Your task to perform on an android device: turn on priority inbox in the gmail app Image 0: 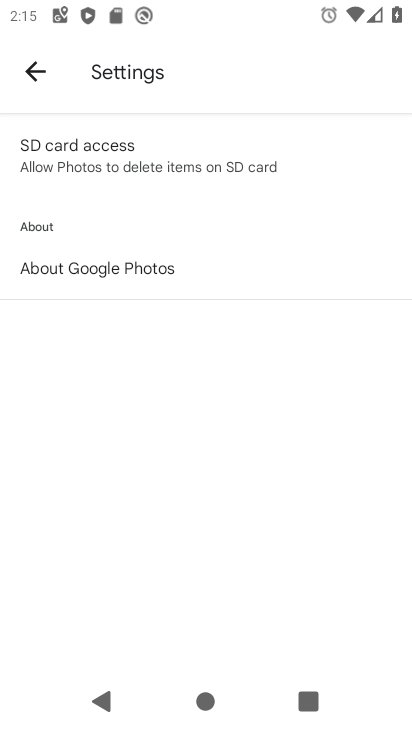
Step 0: press home button
Your task to perform on an android device: turn on priority inbox in the gmail app Image 1: 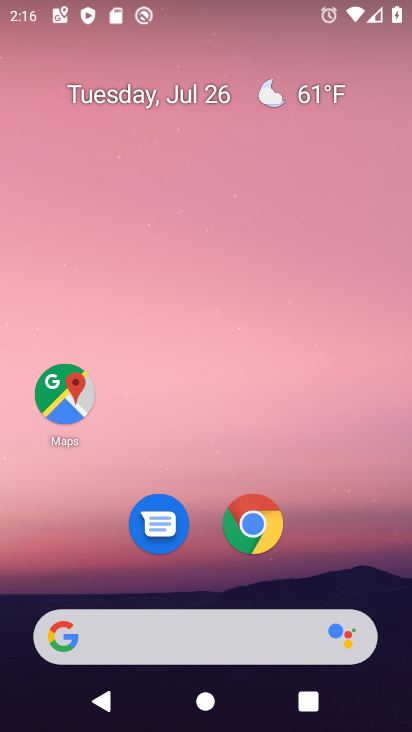
Step 1: drag from (174, 646) to (250, 125)
Your task to perform on an android device: turn on priority inbox in the gmail app Image 2: 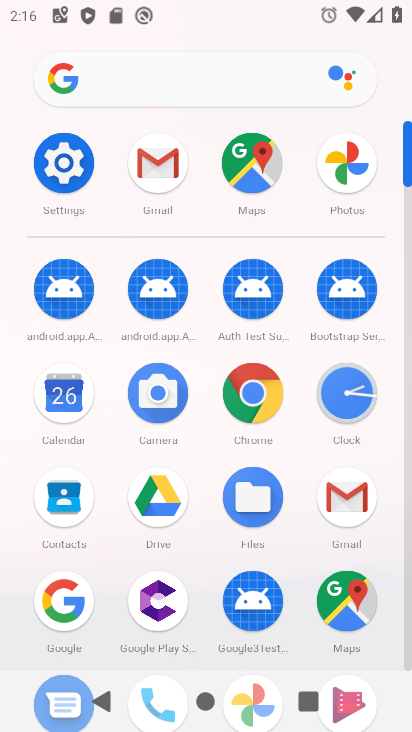
Step 2: click (168, 177)
Your task to perform on an android device: turn on priority inbox in the gmail app Image 3: 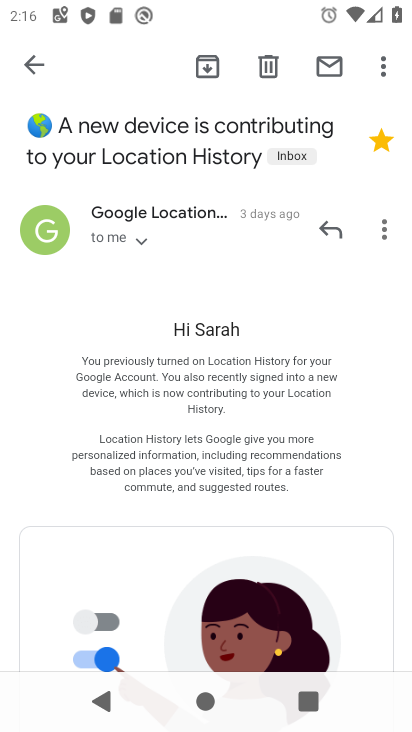
Step 3: click (35, 64)
Your task to perform on an android device: turn on priority inbox in the gmail app Image 4: 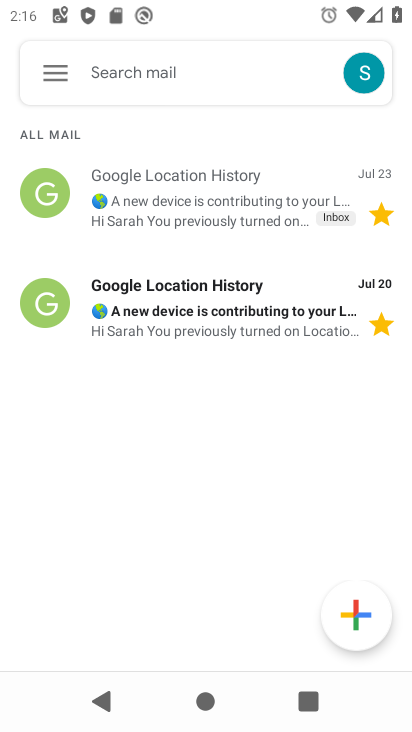
Step 4: click (53, 74)
Your task to perform on an android device: turn on priority inbox in the gmail app Image 5: 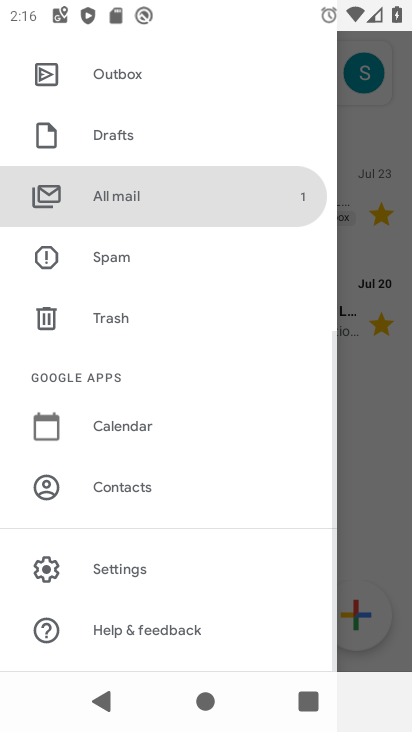
Step 5: drag from (203, 551) to (272, 98)
Your task to perform on an android device: turn on priority inbox in the gmail app Image 6: 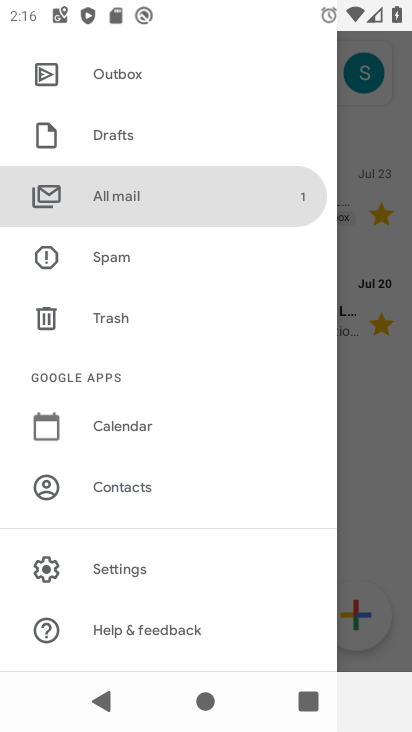
Step 6: click (142, 567)
Your task to perform on an android device: turn on priority inbox in the gmail app Image 7: 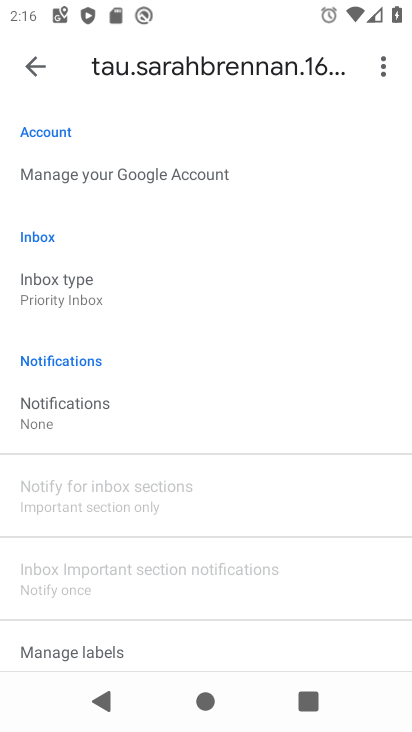
Step 7: click (74, 295)
Your task to perform on an android device: turn on priority inbox in the gmail app Image 8: 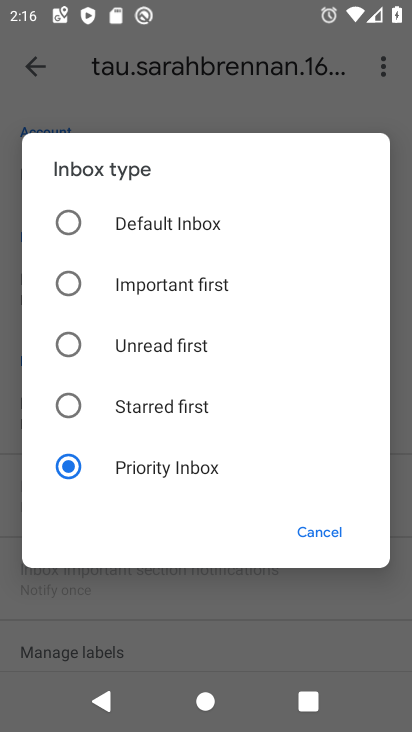
Step 8: task complete